Your task to perform on an android device: What's the weather today? Image 0: 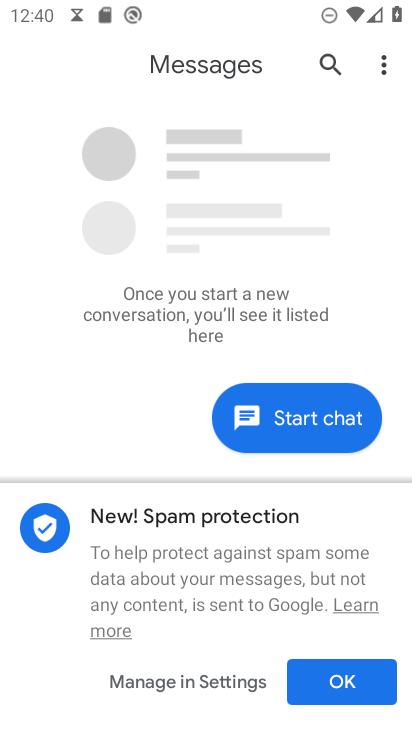
Step 0: press home button
Your task to perform on an android device: What's the weather today? Image 1: 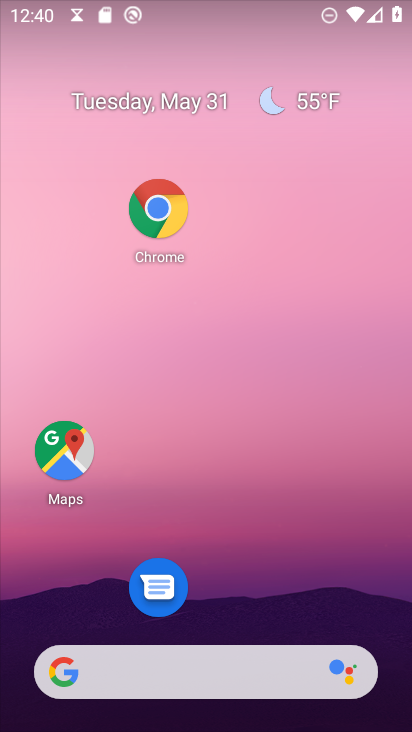
Step 1: click (156, 215)
Your task to perform on an android device: What's the weather today? Image 2: 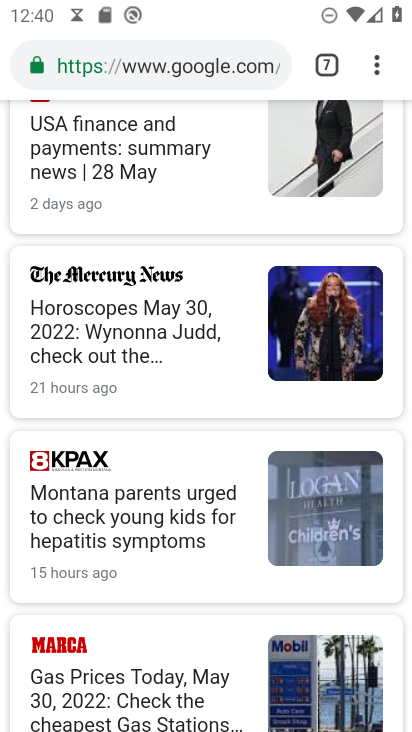
Step 2: click (329, 60)
Your task to perform on an android device: What's the weather today? Image 3: 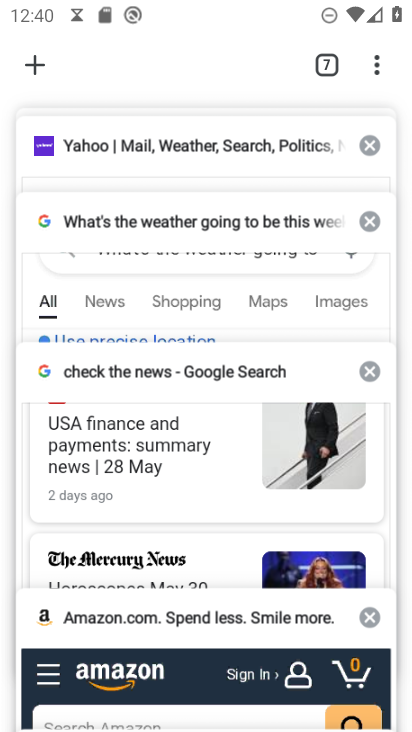
Step 3: drag from (205, 123) to (181, 494)
Your task to perform on an android device: What's the weather today? Image 4: 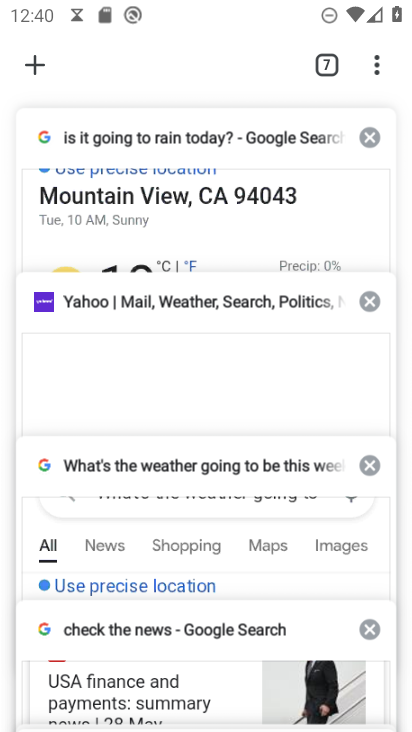
Step 4: click (138, 242)
Your task to perform on an android device: What's the weather today? Image 5: 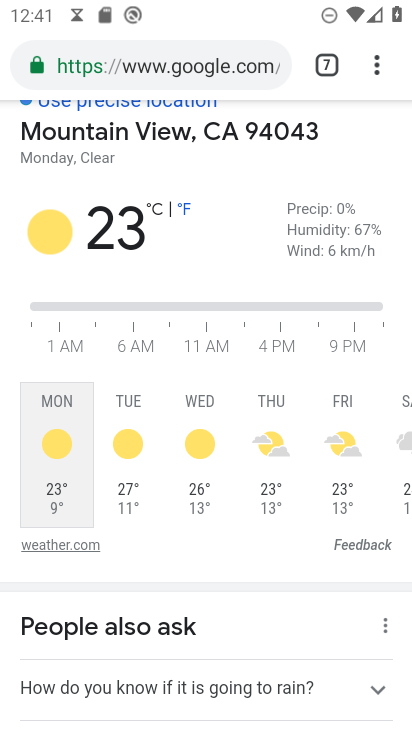
Step 5: click (65, 419)
Your task to perform on an android device: What's the weather today? Image 6: 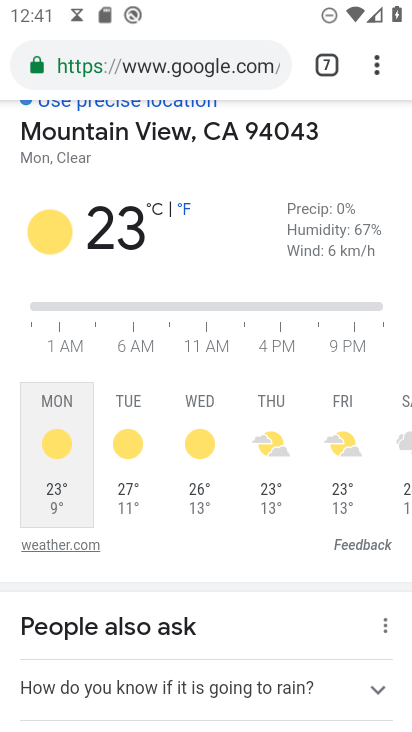
Step 6: task complete